Your task to perform on an android device: snooze an email in the gmail app Image 0: 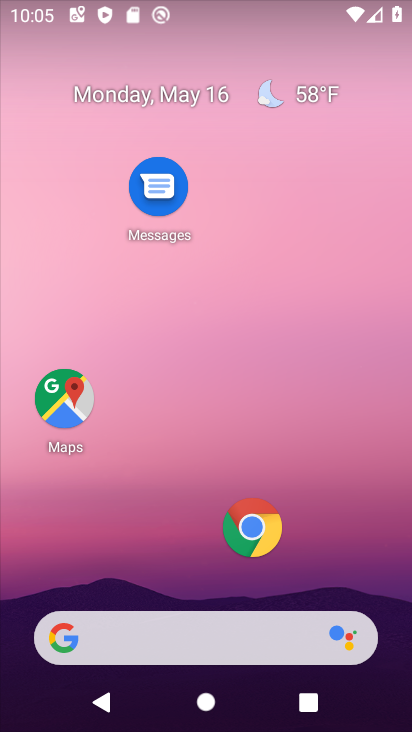
Step 0: drag from (143, 511) to (123, 81)
Your task to perform on an android device: snooze an email in the gmail app Image 1: 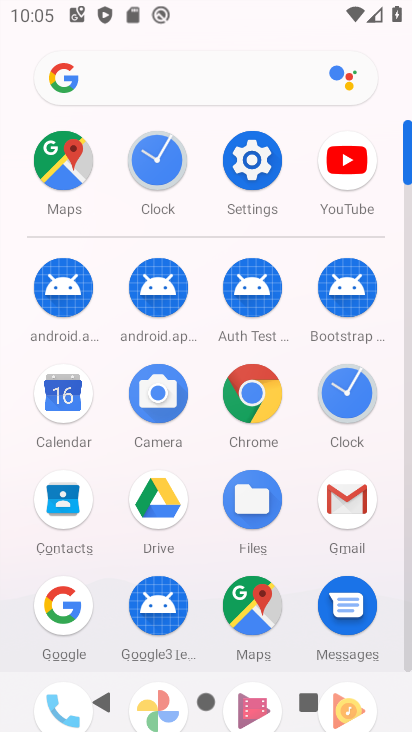
Step 1: click (339, 505)
Your task to perform on an android device: snooze an email in the gmail app Image 2: 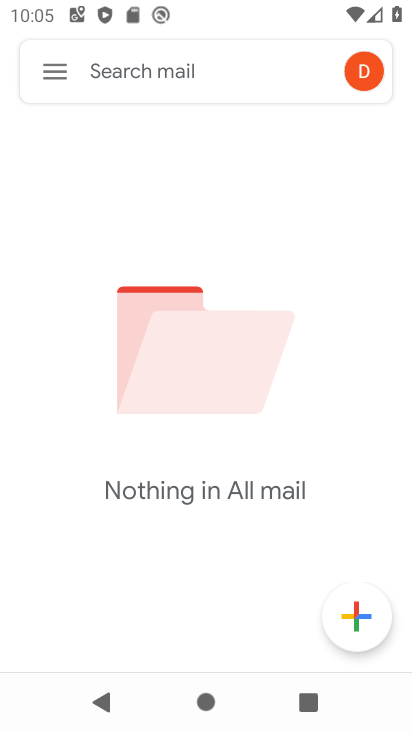
Step 2: click (51, 69)
Your task to perform on an android device: snooze an email in the gmail app Image 3: 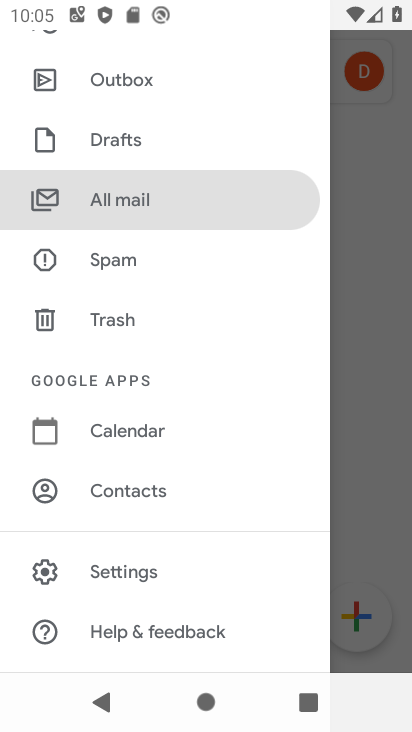
Step 3: click (129, 190)
Your task to perform on an android device: snooze an email in the gmail app Image 4: 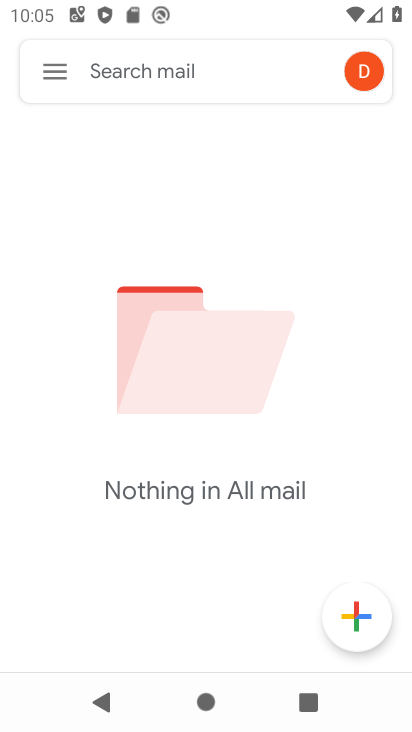
Step 4: task complete